Your task to perform on an android device: Open Reddit.com Image 0: 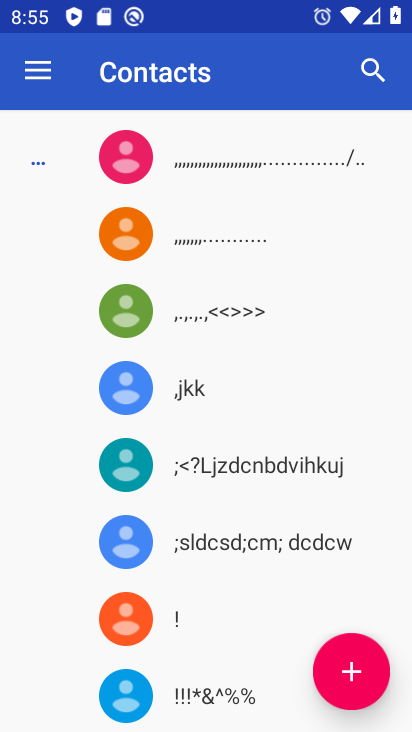
Step 0: press home button
Your task to perform on an android device: Open Reddit.com Image 1: 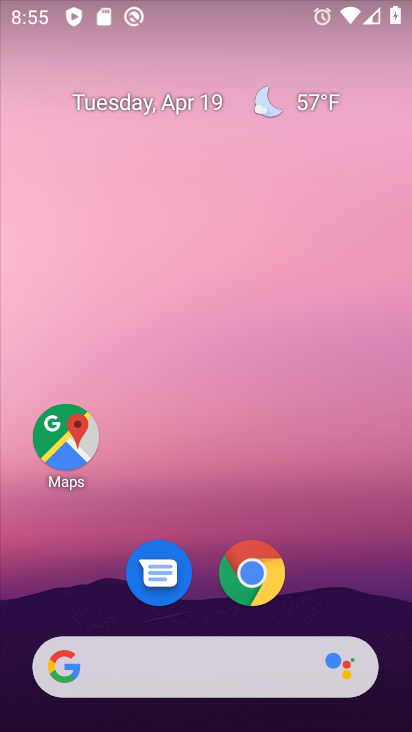
Step 1: click (240, 573)
Your task to perform on an android device: Open Reddit.com Image 2: 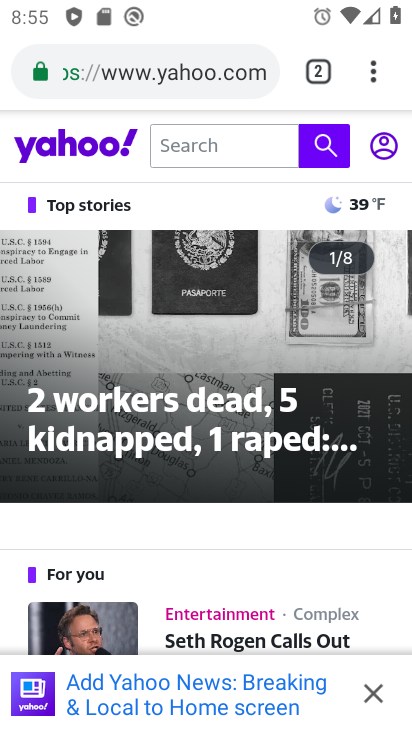
Step 2: click (317, 66)
Your task to perform on an android device: Open Reddit.com Image 3: 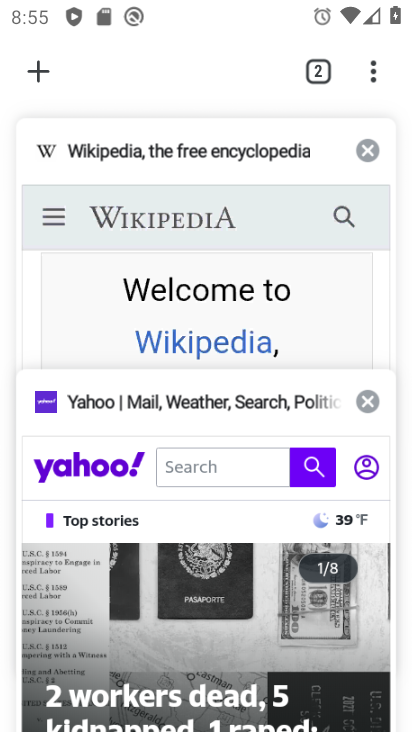
Step 3: click (36, 68)
Your task to perform on an android device: Open Reddit.com Image 4: 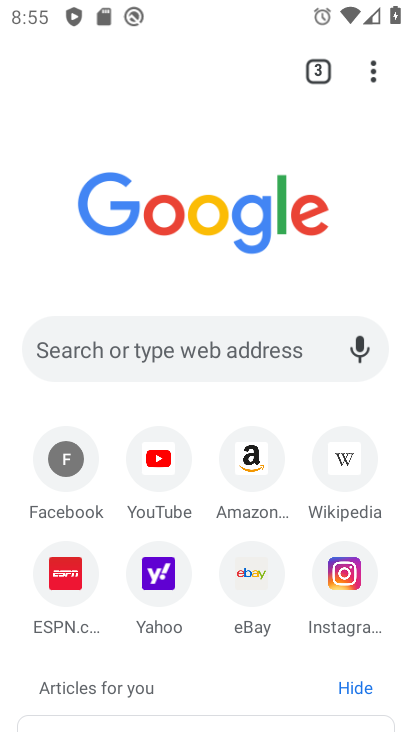
Step 4: click (144, 336)
Your task to perform on an android device: Open Reddit.com Image 5: 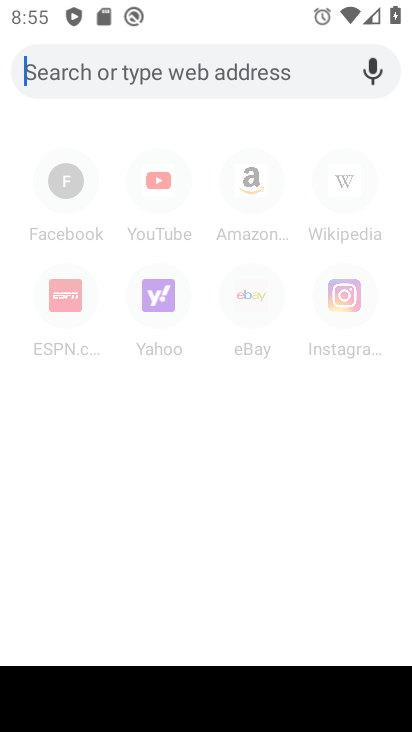
Step 5: type "Reddit.com"
Your task to perform on an android device: Open Reddit.com Image 6: 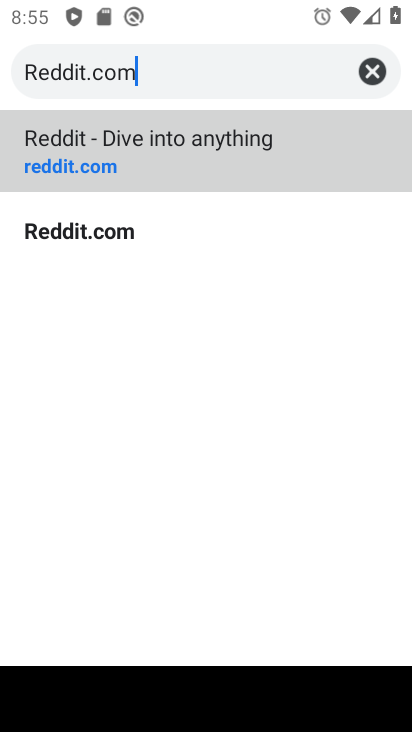
Step 6: click (112, 149)
Your task to perform on an android device: Open Reddit.com Image 7: 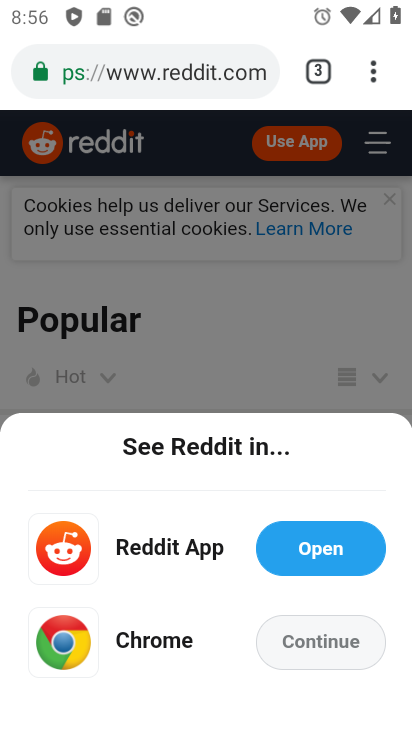
Step 7: click (308, 553)
Your task to perform on an android device: Open Reddit.com Image 8: 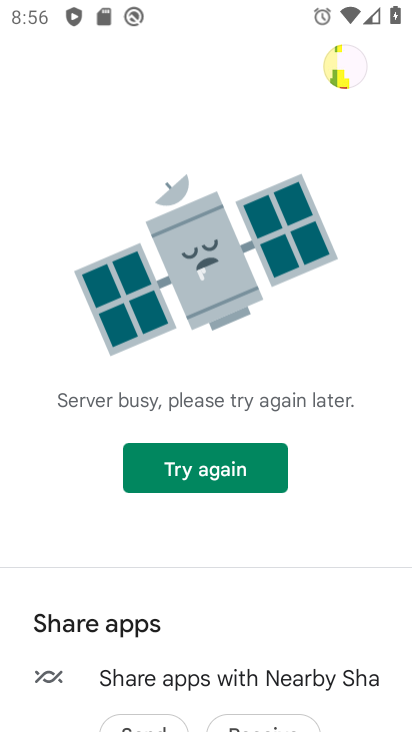
Step 8: task complete